Your task to perform on an android device: see sites visited before in the chrome app Image 0: 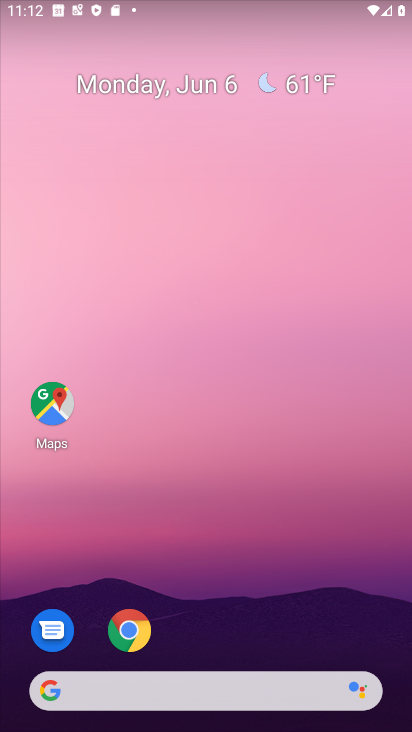
Step 0: drag from (289, 610) to (265, 220)
Your task to perform on an android device: see sites visited before in the chrome app Image 1: 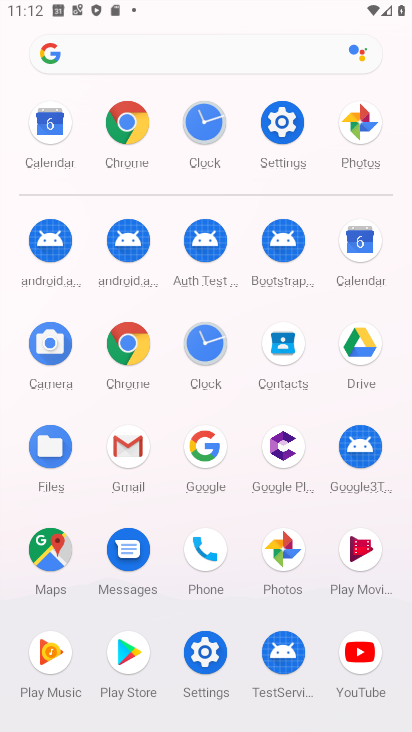
Step 1: click (121, 354)
Your task to perform on an android device: see sites visited before in the chrome app Image 2: 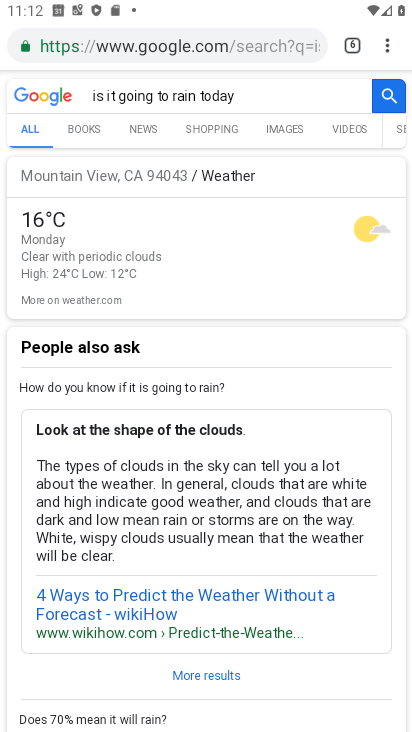
Step 2: task complete